Your task to perform on an android device: Do I have any events this weekend? Image 0: 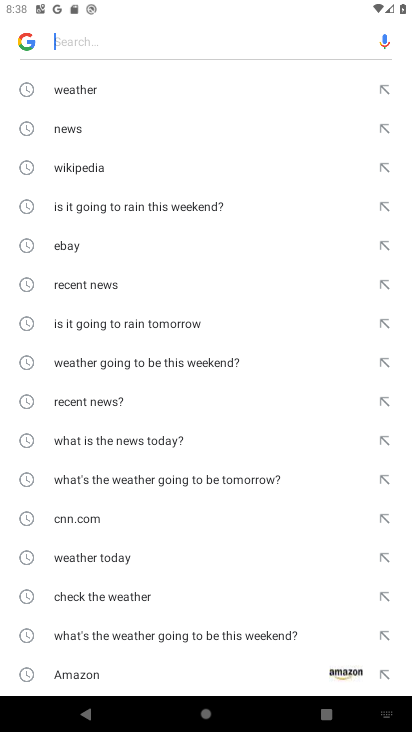
Step 0: press home button
Your task to perform on an android device: Do I have any events this weekend? Image 1: 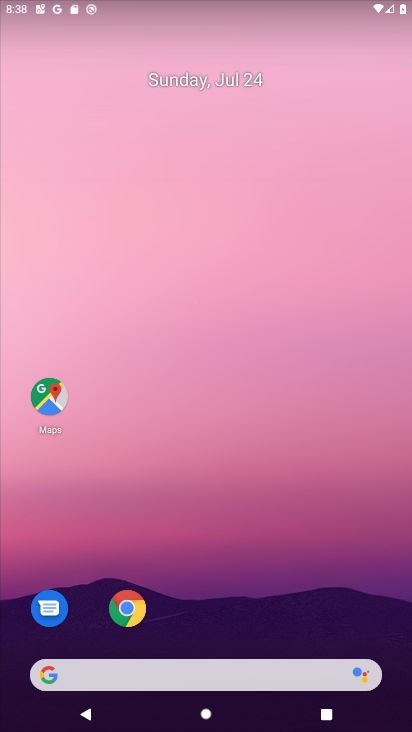
Step 1: click (231, 81)
Your task to perform on an android device: Do I have any events this weekend? Image 2: 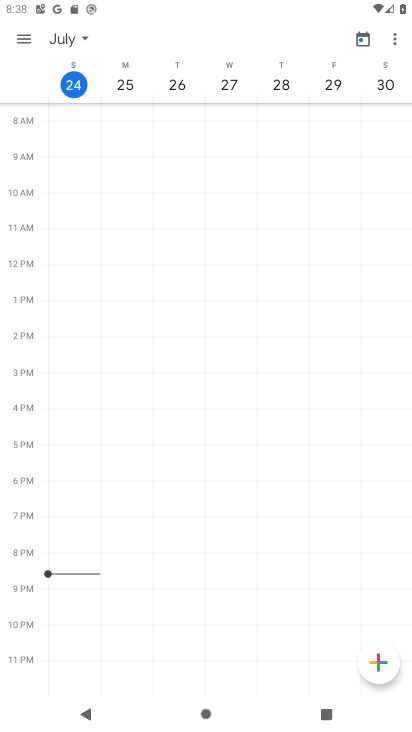
Step 2: click (406, 76)
Your task to perform on an android device: Do I have any events this weekend? Image 3: 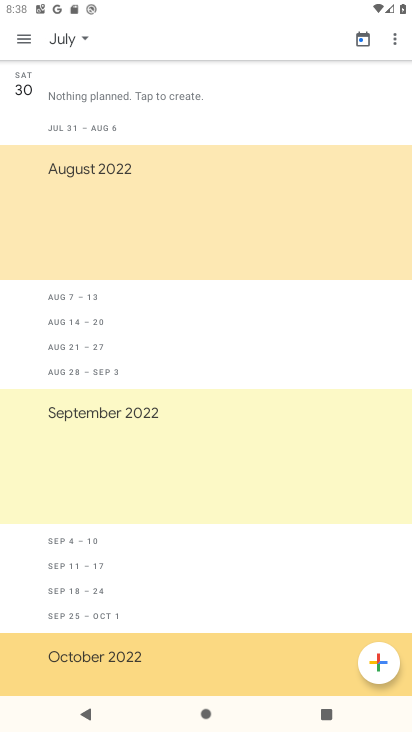
Step 3: task complete